Your task to perform on an android device: Open network settings Image 0: 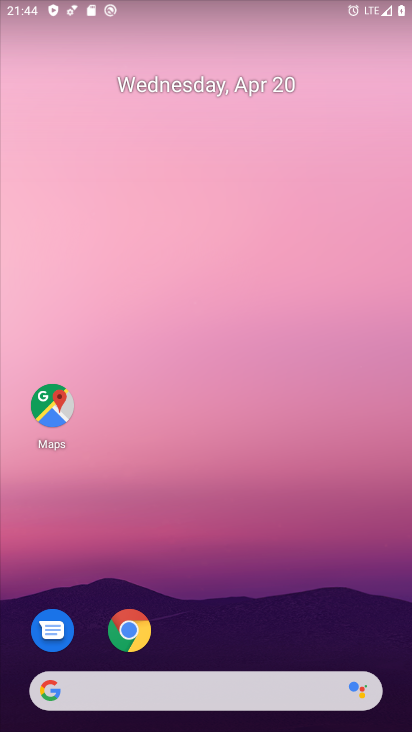
Step 0: drag from (265, 484) to (237, 134)
Your task to perform on an android device: Open network settings Image 1: 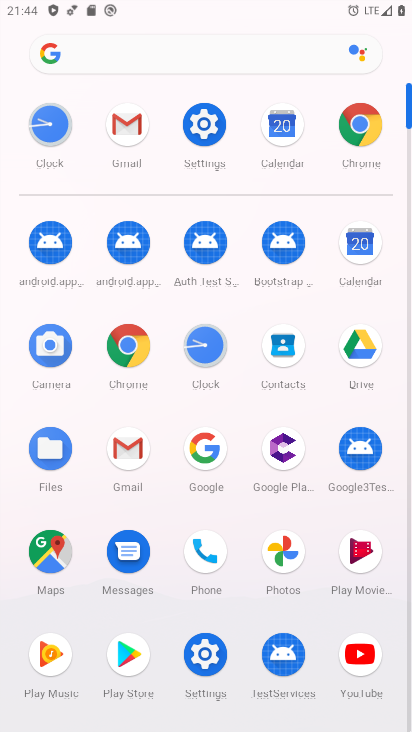
Step 1: click (208, 129)
Your task to perform on an android device: Open network settings Image 2: 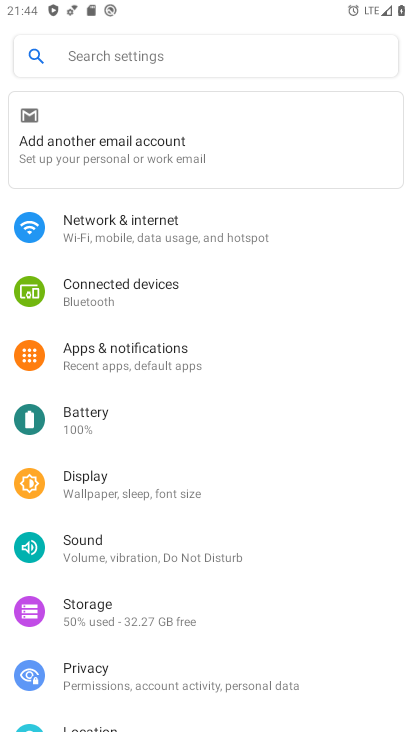
Step 2: click (189, 225)
Your task to perform on an android device: Open network settings Image 3: 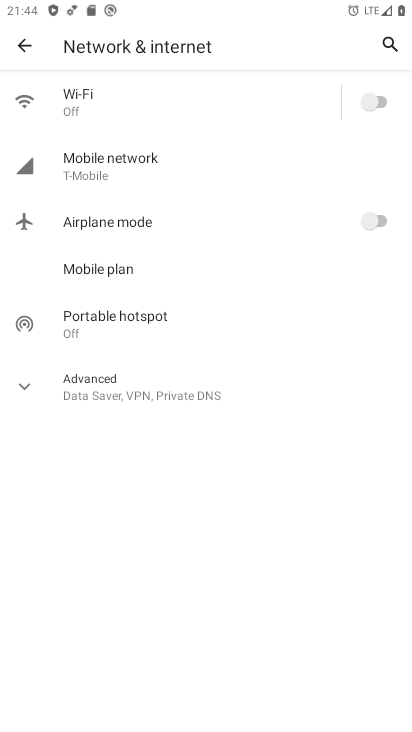
Step 3: task complete